Your task to perform on an android device: Open settings on Google Maps Image 0: 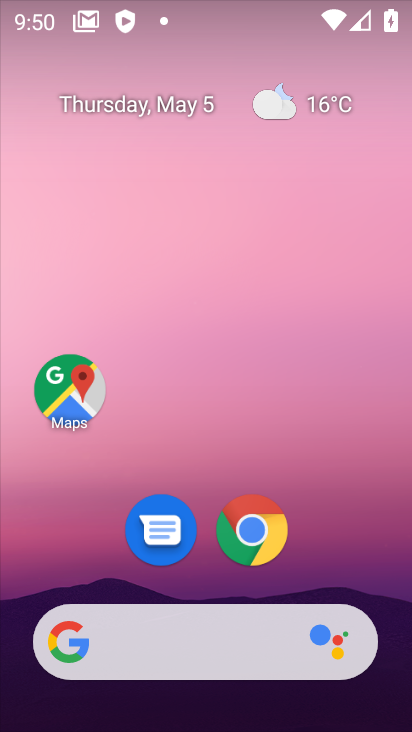
Step 0: drag from (338, 684) to (197, 92)
Your task to perform on an android device: Open settings on Google Maps Image 1: 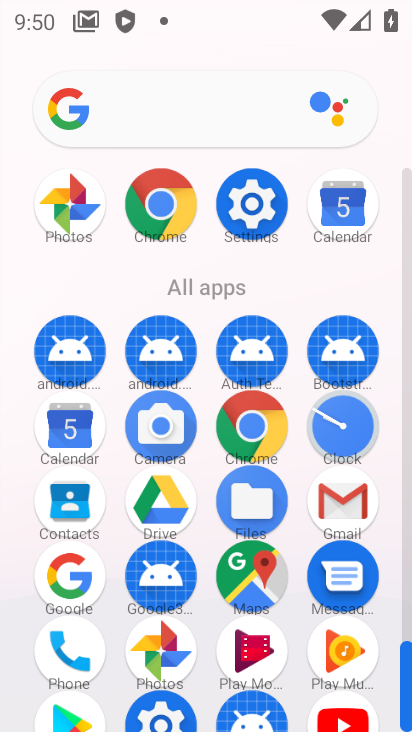
Step 1: click (70, 579)
Your task to perform on an android device: Open settings on Google Maps Image 2: 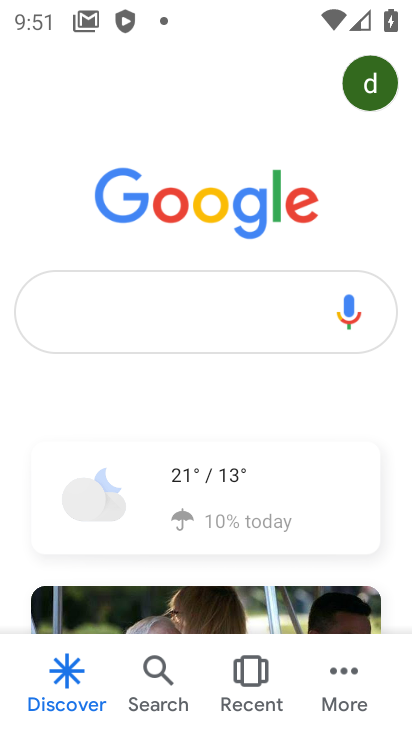
Step 2: press home button
Your task to perform on an android device: Open settings on Google Maps Image 3: 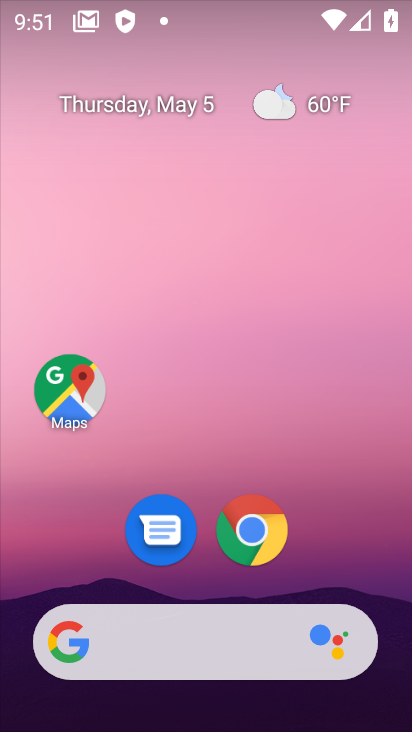
Step 3: click (71, 391)
Your task to perform on an android device: Open settings on Google Maps Image 4: 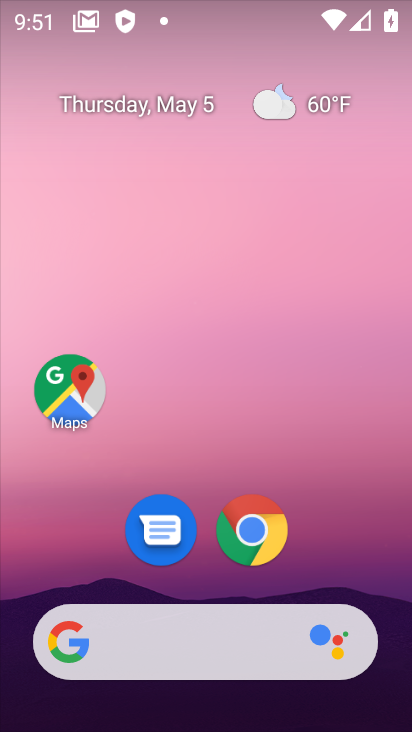
Step 4: click (71, 391)
Your task to perform on an android device: Open settings on Google Maps Image 5: 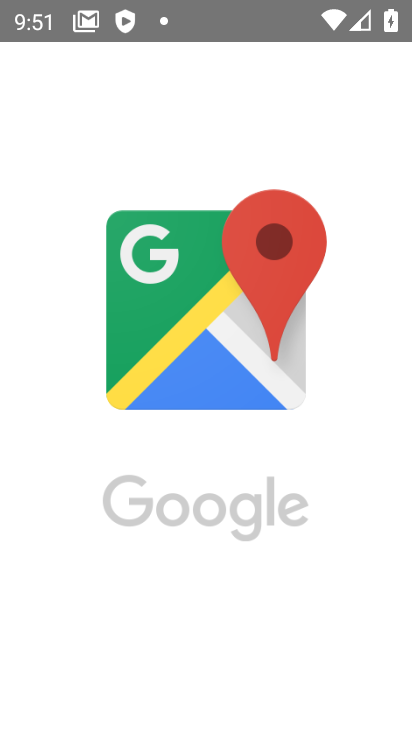
Step 5: click (66, 390)
Your task to perform on an android device: Open settings on Google Maps Image 6: 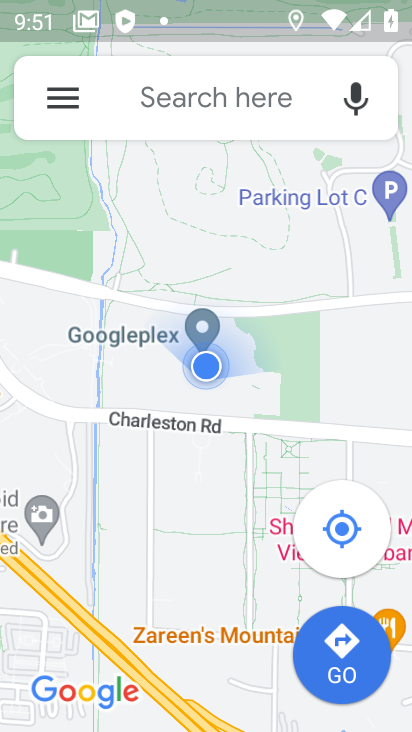
Step 6: click (56, 98)
Your task to perform on an android device: Open settings on Google Maps Image 7: 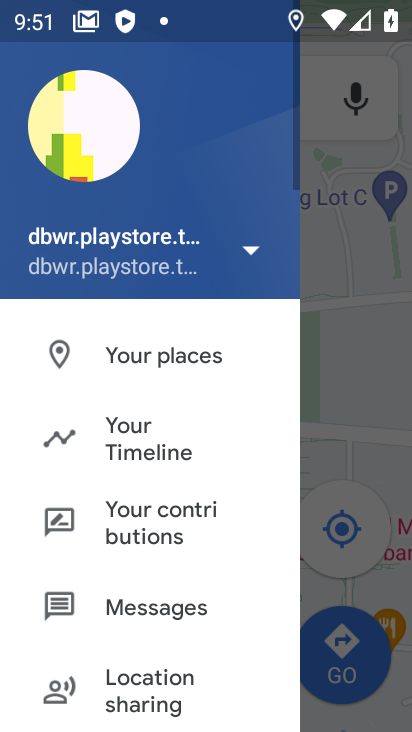
Step 7: click (145, 455)
Your task to perform on an android device: Open settings on Google Maps Image 8: 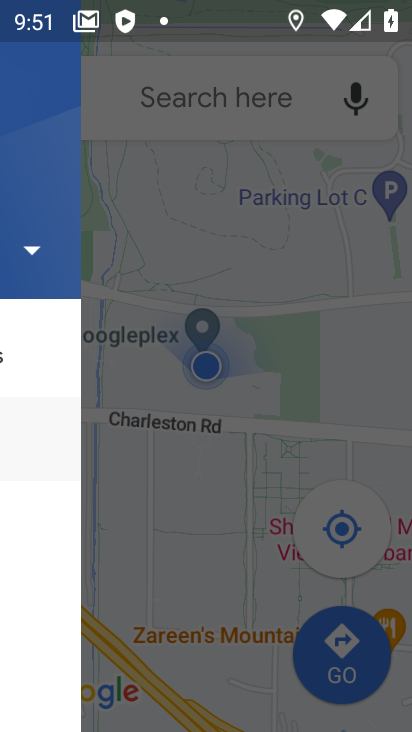
Step 8: click (144, 451)
Your task to perform on an android device: Open settings on Google Maps Image 9: 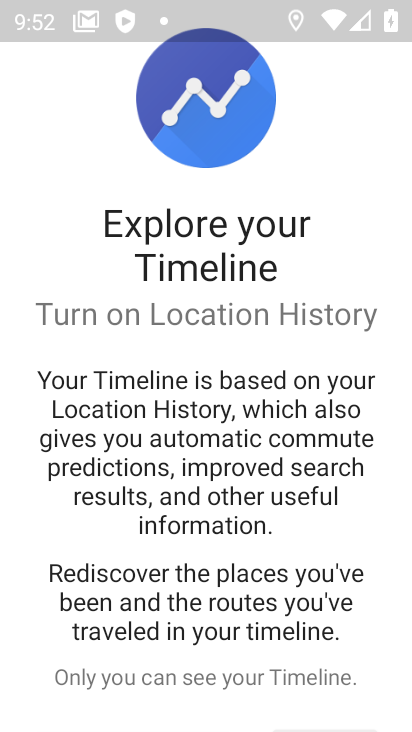
Step 9: drag from (229, 584) to (147, 305)
Your task to perform on an android device: Open settings on Google Maps Image 10: 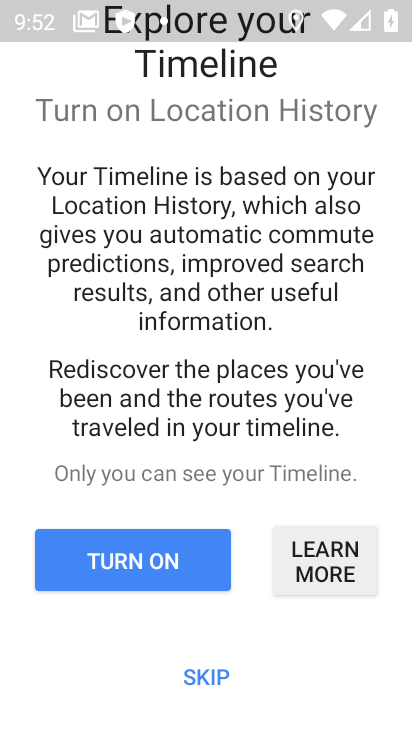
Step 10: click (143, 562)
Your task to perform on an android device: Open settings on Google Maps Image 11: 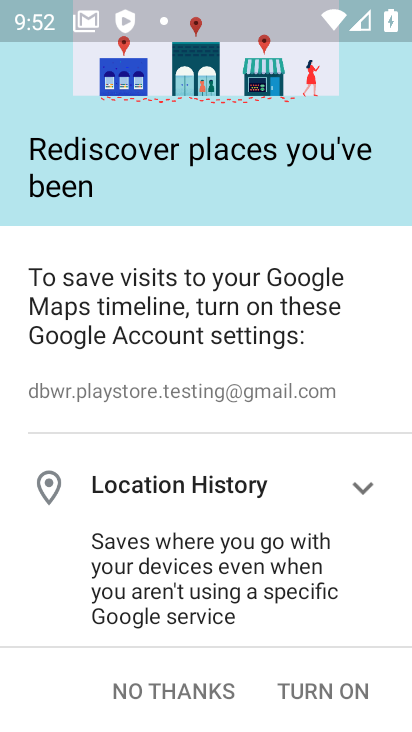
Step 11: task complete